Your task to perform on an android device: Search for Mexican restaurants on Maps Image 0: 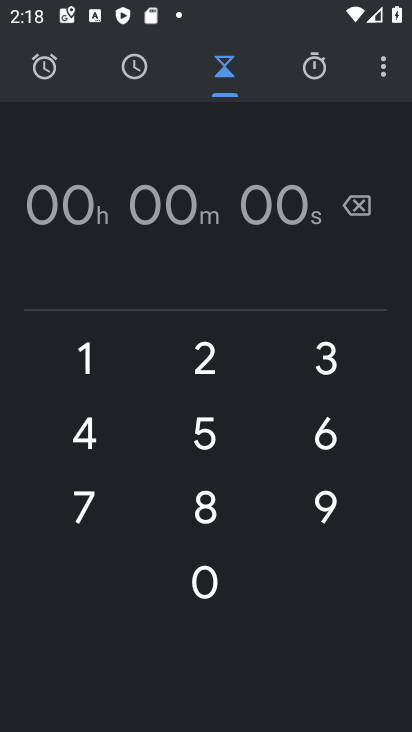
Step 0: press home button
Your task to perform on an android device: Search for Mexican restaurants on Maps Image 1: 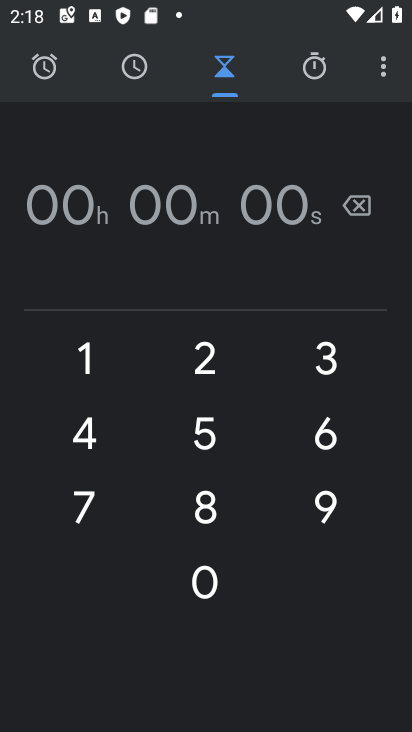
Step 1: press home button
Your task to perform on an android device: Search for Mexican restaurants on Maps Image 2: 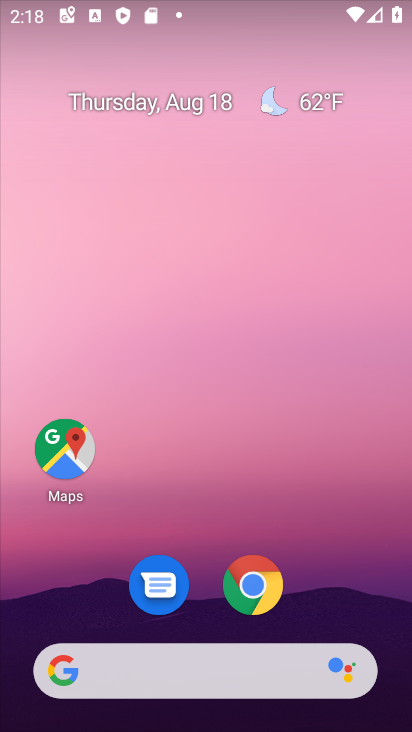
Step 2: click (67, 444)
Your task to perform on an android device: Search for Mexican restaurants on Maps Image 3: 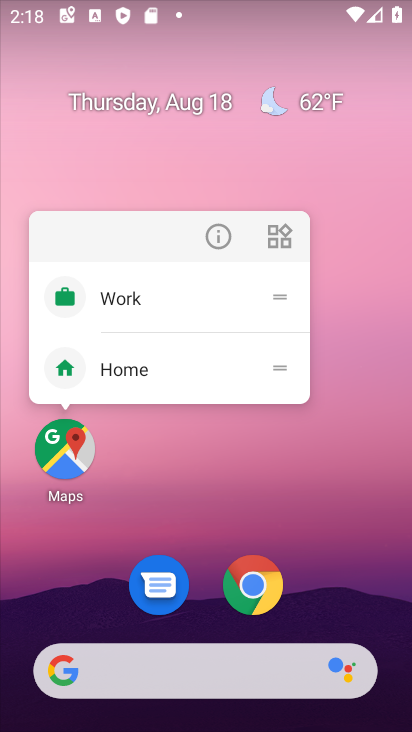
Step 3: click (67, 443)
Your task to perform on an android device: Search for Mexican restaurants on Maps Image 4: 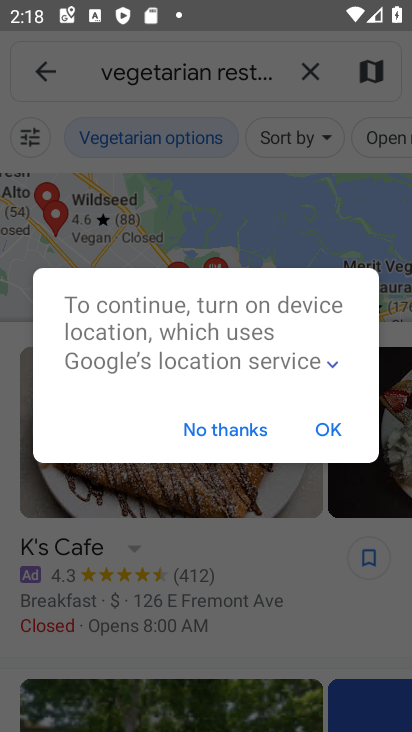
Step 4: click (331, 427)
Your task to perform on an android device: Search for Mexican restaurants on Maps Image 5: 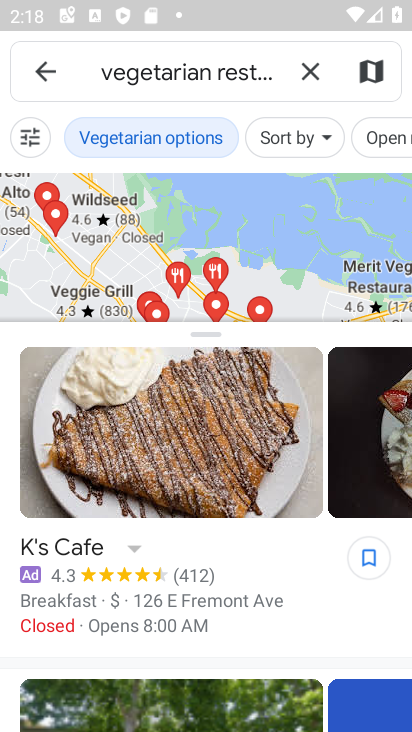
Step 5: click (54, 69)
Your task to perform on an android device: Search for Mexican restaurants on Maps Image 6: 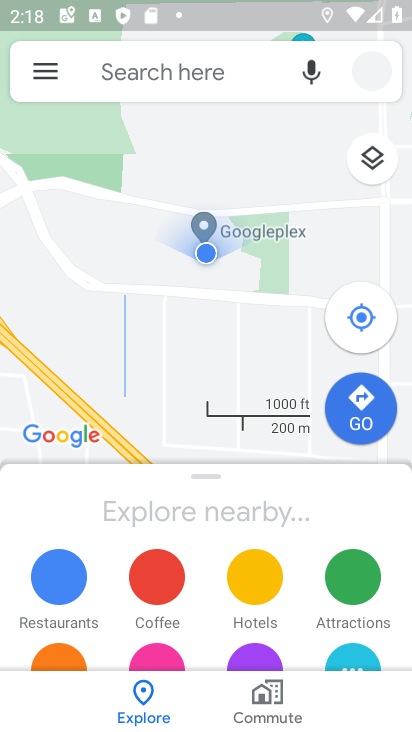
Step 6: click (143, 64)
Your task to perform on an android device: Search for Mexican restaurants on Maps Image 7: 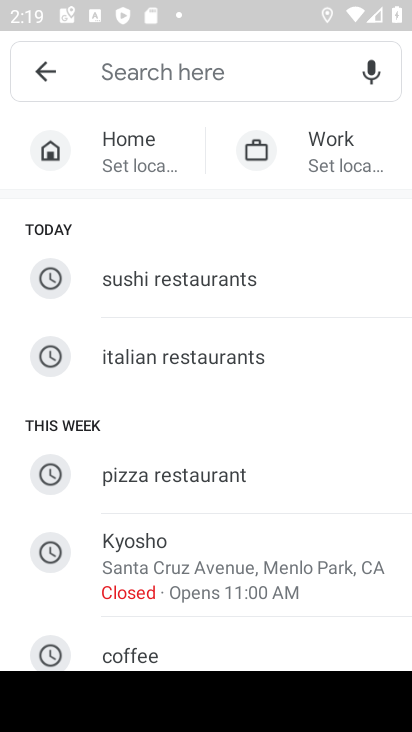
Step 7: drag from (203, 540) to (233, 146)
Your task to perform on an android device: Search for Mexican restaurants on Maps Image 8: 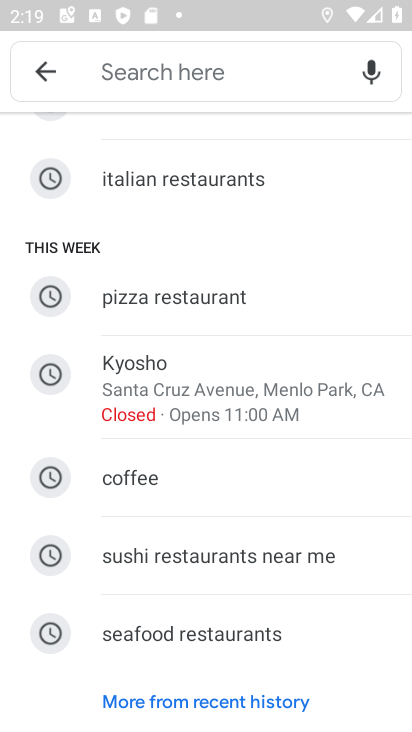
Step 8: drag from (211, 186) to (203, 584)
Your task to perform on an android device: Search for Mexican restaurants on Maps Image 9: 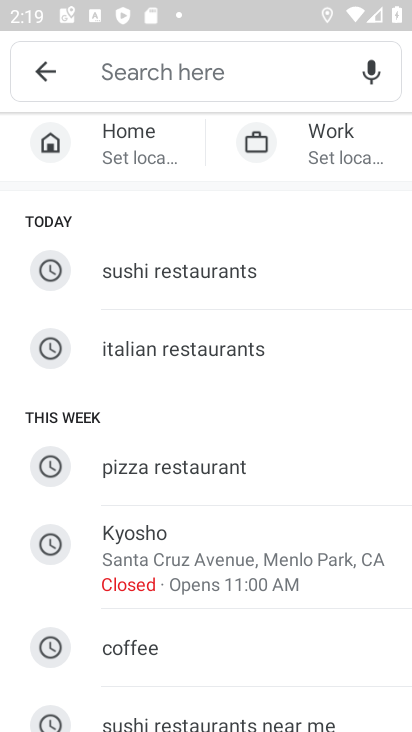
Step 9: click (222, 80)
Your task to perform on an android device: Search for Mexican restaurants on Maps Image 10: 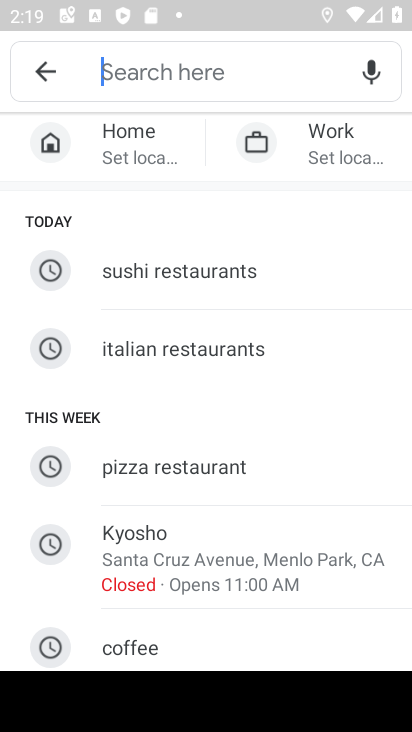
Step 10: type "mexican restaurants"
Your task to perform on an android device: Search for Mexican restaurants on Maps Image 11: 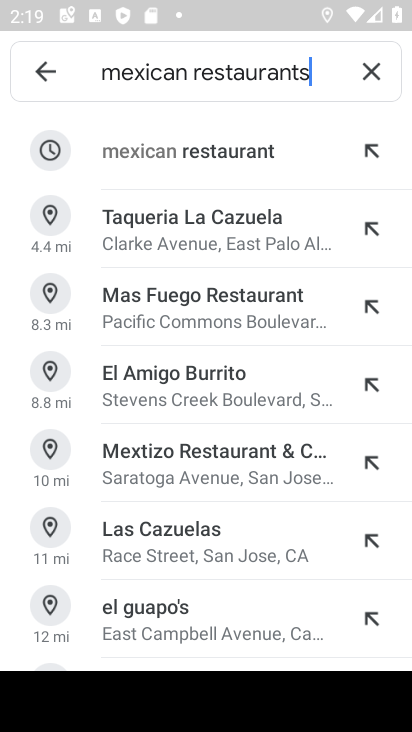
Step 11: click (244, 145)
Your task to perform on an android device: Search for Mexican restaurants on Maps Image 12: 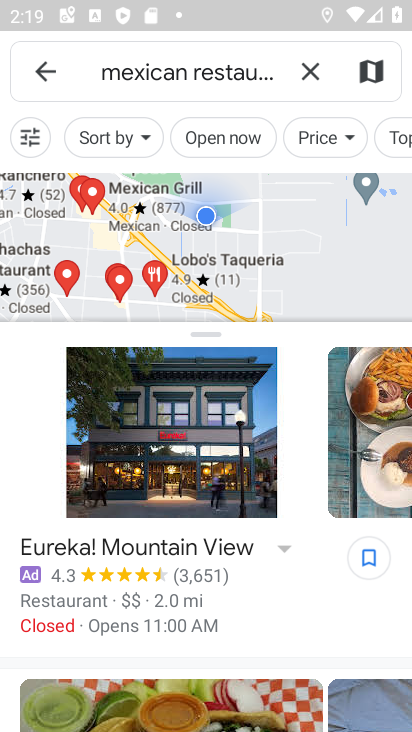
Step 12: task complete